Your task to perform on an android device: Open the stopwatch Image 0: 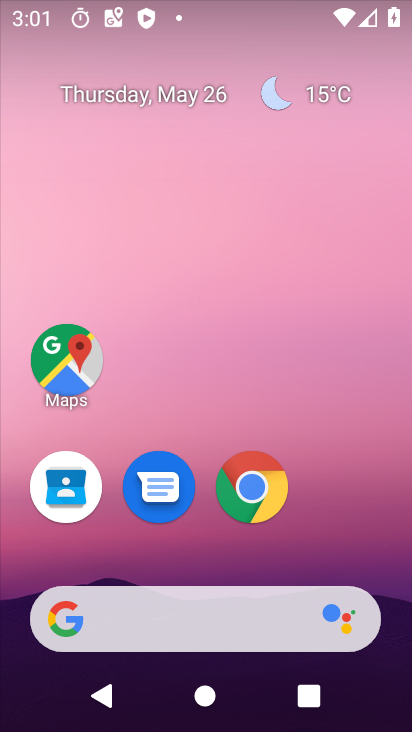
Step 0: drag from (220, 589) to (258, 208)
Your task to perform on an android device: Open the stopwatch Image 1: 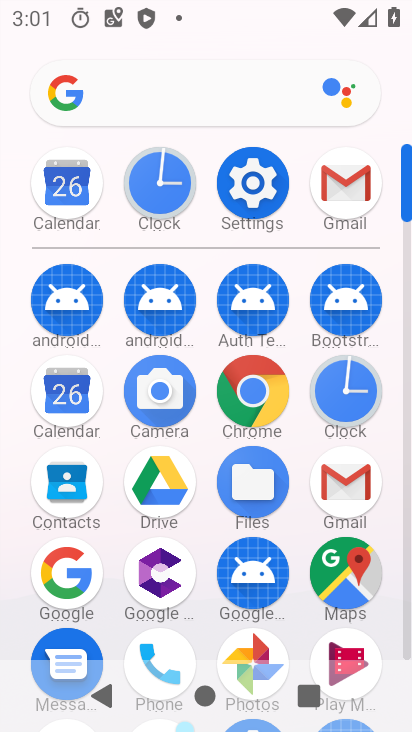
Step 1: click (263, 234)
Your task to perform on an android device: Open the stopwatch Image 2: 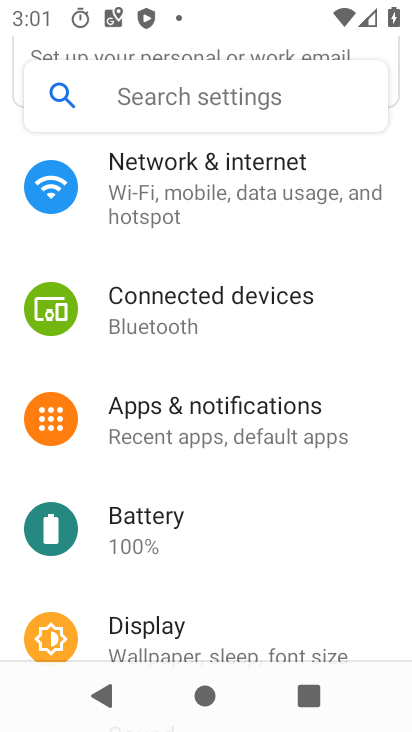
Step 2: press home button
Your task to perform on an android device: Open the stopwatch Image 3: 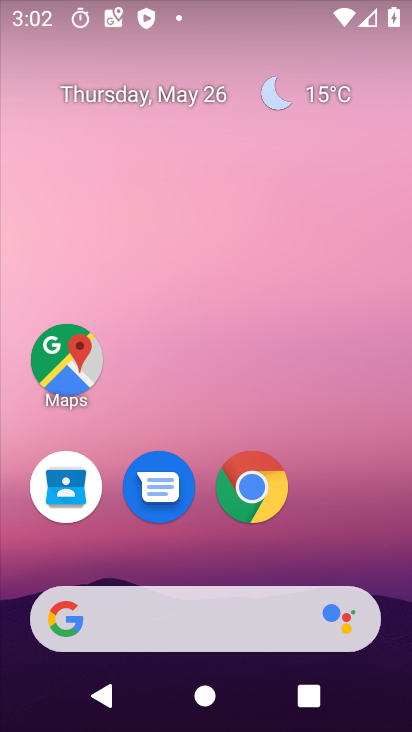
Step 3: drag from (196, 553) to (253, 237)
Your task to perform on an android device: Open the stopwatch Image 4: 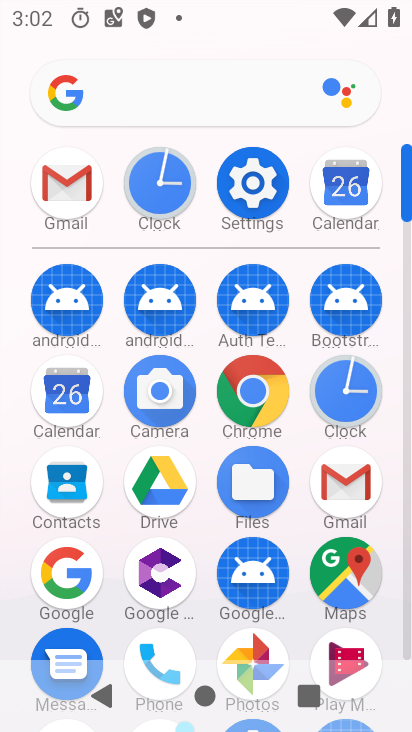
Step 4: click (332, 407)
Your task to perform on an android device: Open the stopwatch Image 5: 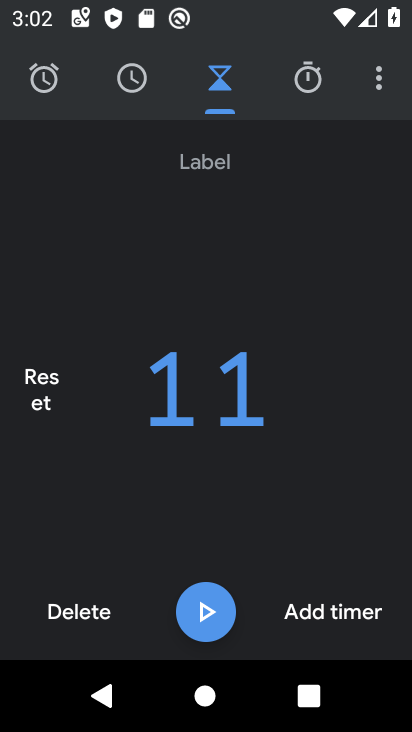
Step 5: click (297, 86)
Your task to perform on an android device: Open the stopwatch Image 6: 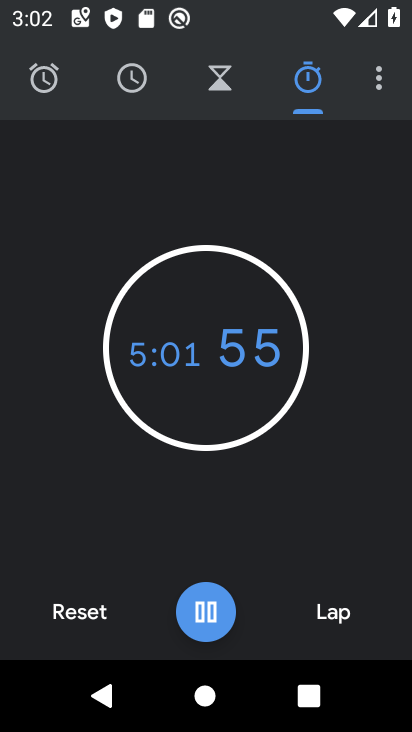
Step 6: task complete